Your task to perform on an android device: Open Google Chrome and click the shortcut for Amazon.com Image 0: 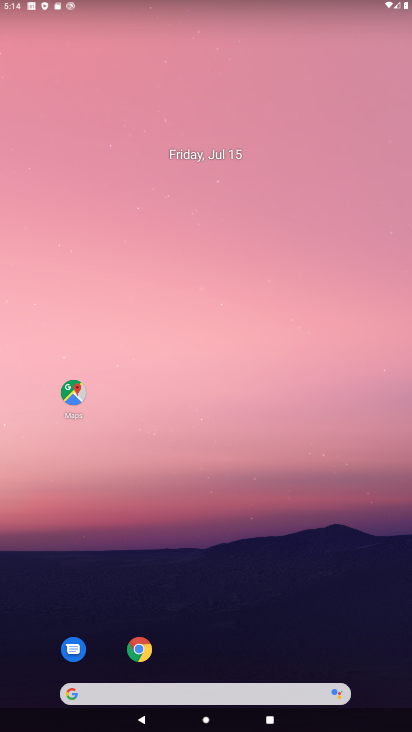
Step 0: click (139, 649)
Your task to perform on an android device: Open Google Chrome and click the shortcut for Amazon.com Image 1: 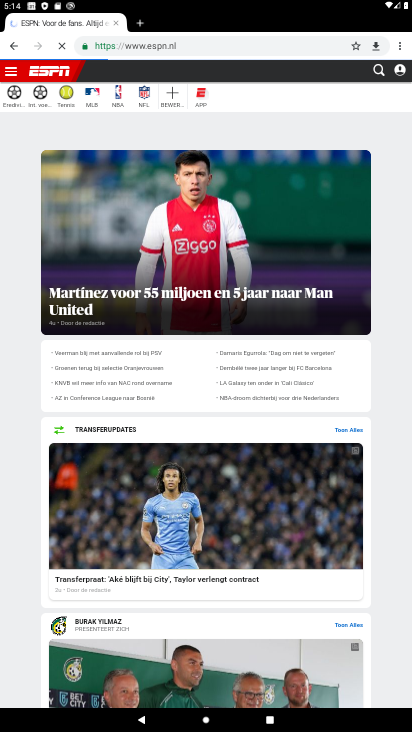
Step 1: click (211, 49)
Your task to perform on an android device: Open Google Chrome and click the shortcut for Amazon.com Image 2: 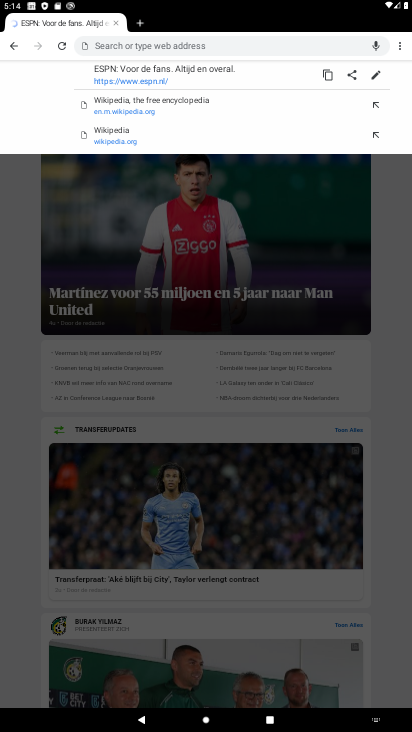
Step 2: type "Amazon.com"
Your task to perform on an android device: Open Google Chrome and click the shortcut for Amazon.com Image 3: 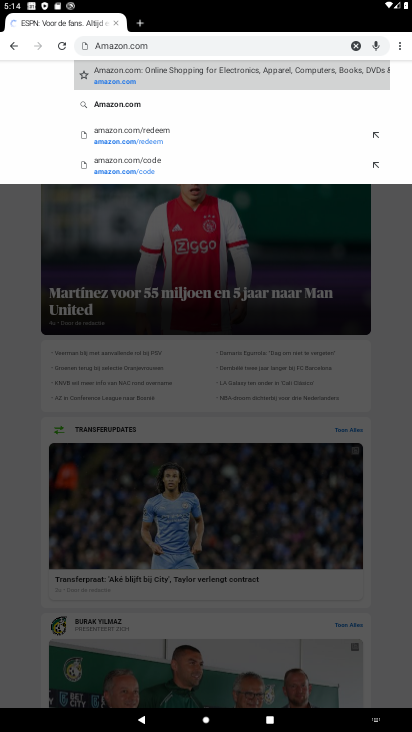
Step 3: click (132, 105)
Your task to perform on an android device: Open Google Chrome and click the shortcut for Amazon.com Image 4: 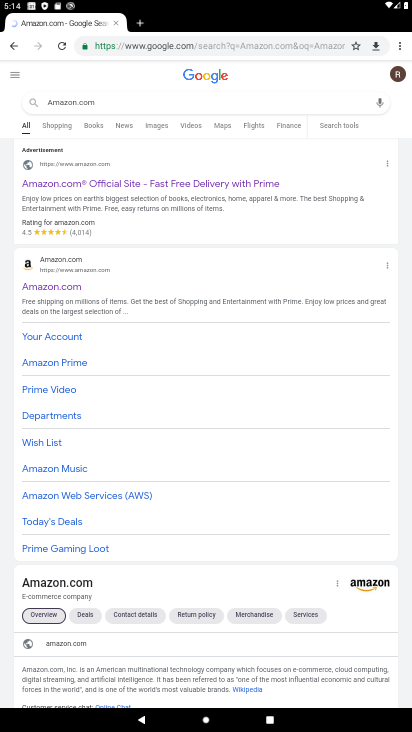
Step 4: click (59, 284)
Your task to perform on an android device: Open Google Chrome and click the shortcut for Amazon.com Image 5: 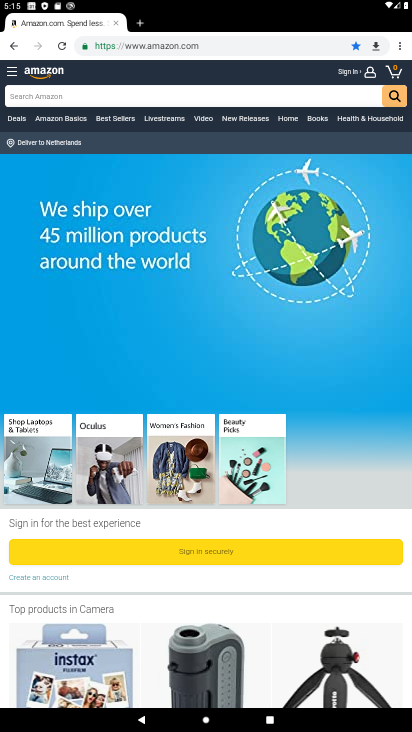
Step 5: click (399, 47)
Your task to perform on an android device: Open Google Chrome and click the shortcut for Amazon.com Image 6: 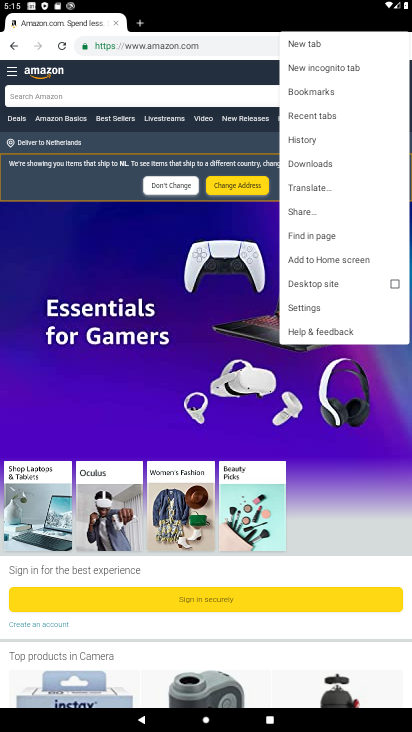
Step 6: click (327, 258)
Your task to perform on an android device: Open Google Chrome and click the shortcut for Amazon.com Image 7: 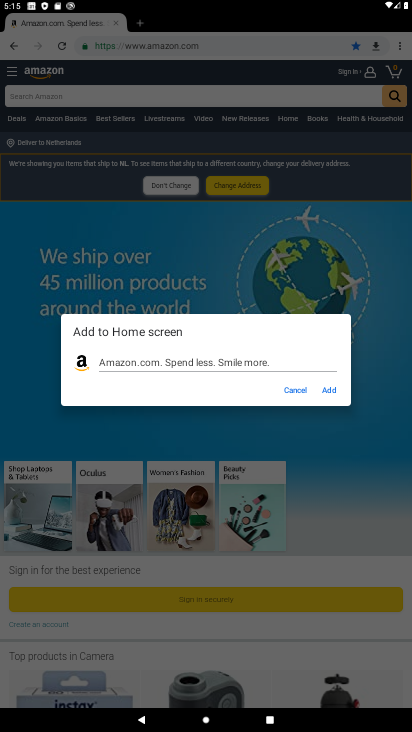
Step 7: click (331, 394)
Your task to perform on an android device: Open Google Chrome and click the shortcut for Amazon.com Image 8: 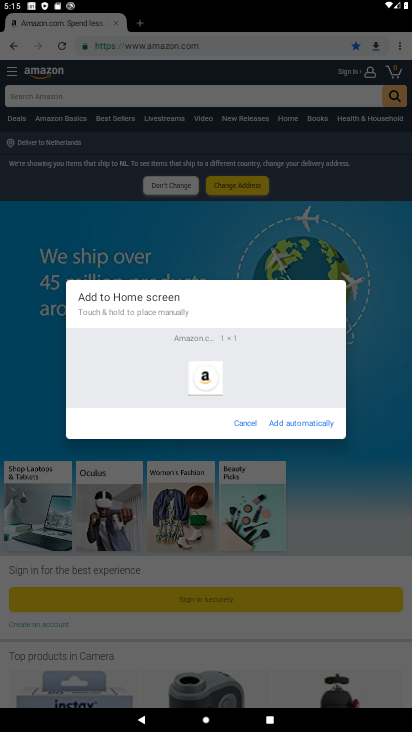
Step 8: click (313, 421)
Your task to perform on an android device: Open Google Chrome and click the shortcut for Amazon.com Image 9: 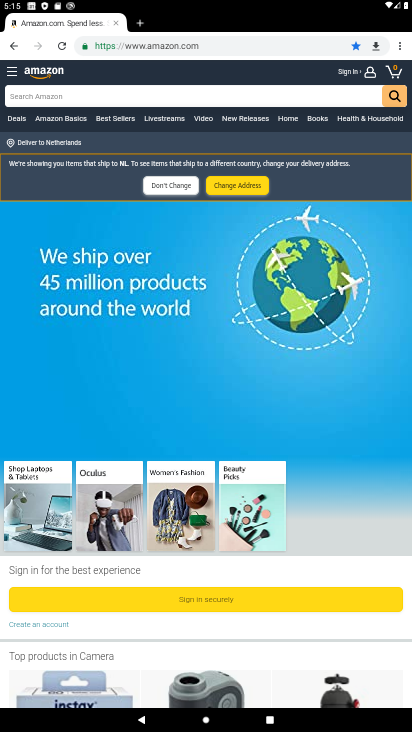
Step 9: task complete